Your task to perform on an android device: turn off improve location accuracy Image 0: 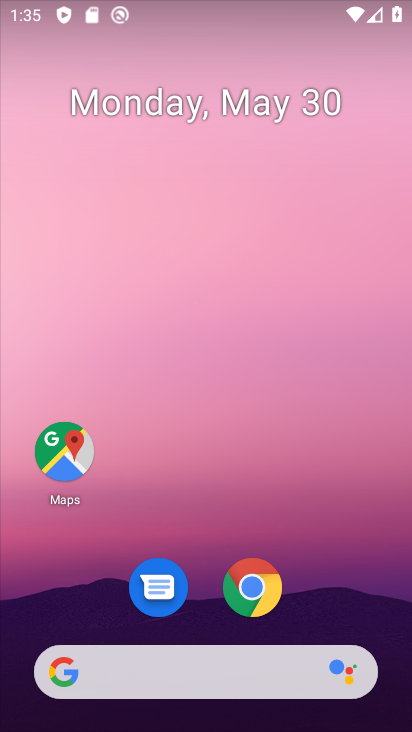
Step 0: drag from (110, 726) to (184, 112)
Your task to perform on an android device: turn off improve location accuracy Image 1: 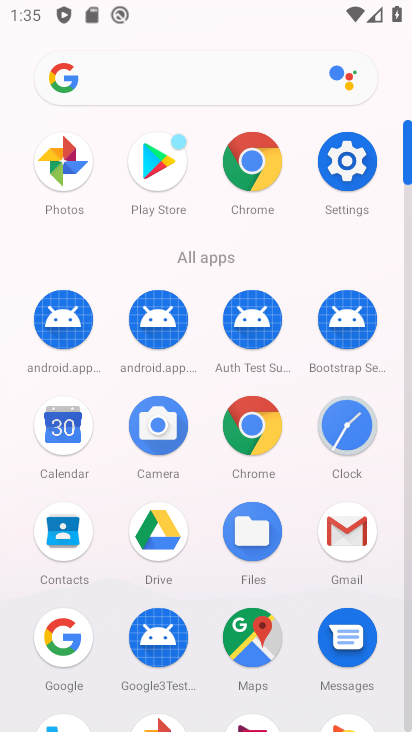
Step 1: click (356, 171)
Your task to perform on an android device: turn off improve location accuracy Image 2: 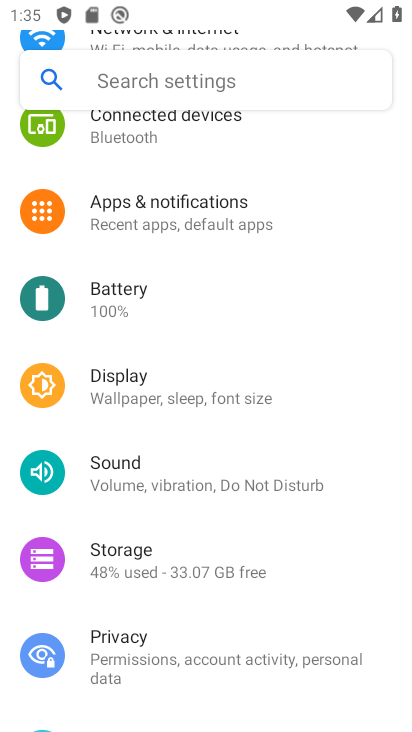
Step 2: drag from (189, 693) to (184, 243)
Your task to perform on an android device: turn off improve location accuracy Image 3: 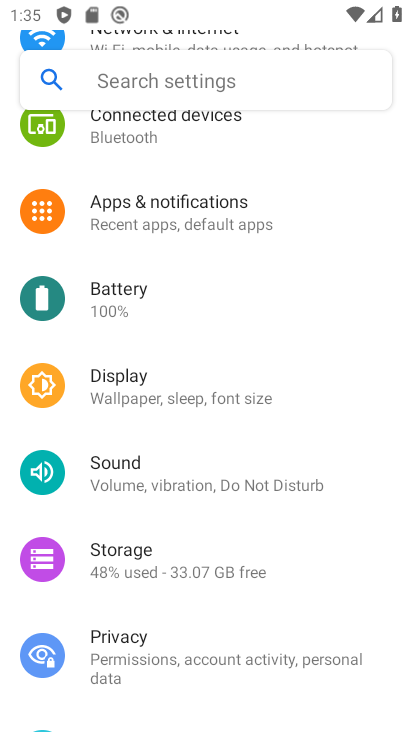
Step 3: drag from (150, 690) to (141, 259)
Your task to perform on an android device: turn off improve location accuracy Image 4: 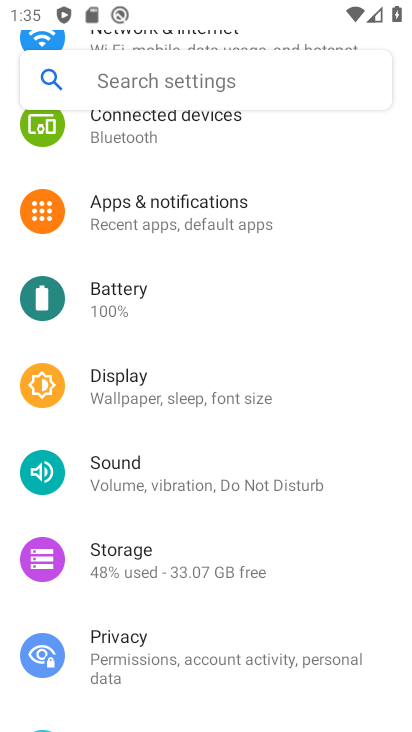
Step 4: drag from (37, 692) to (26, 213)
Your task to perform on an android device: turn off improve location accuracy Image 5: 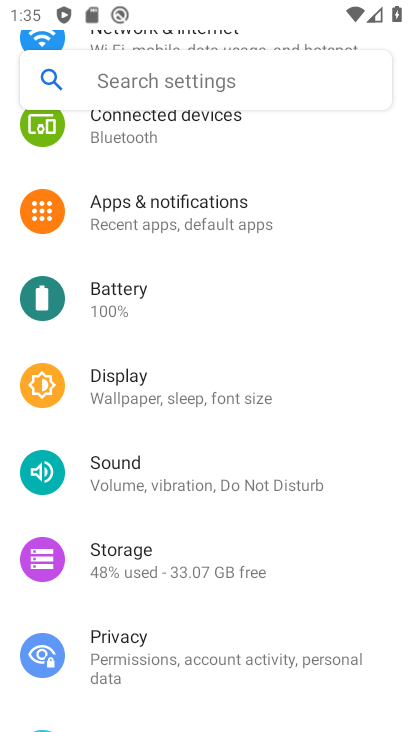
Step 5: drag from (53, 674) to (75, 195)
Your task to perform on an android device: turn off improve location accuracy Image 6: 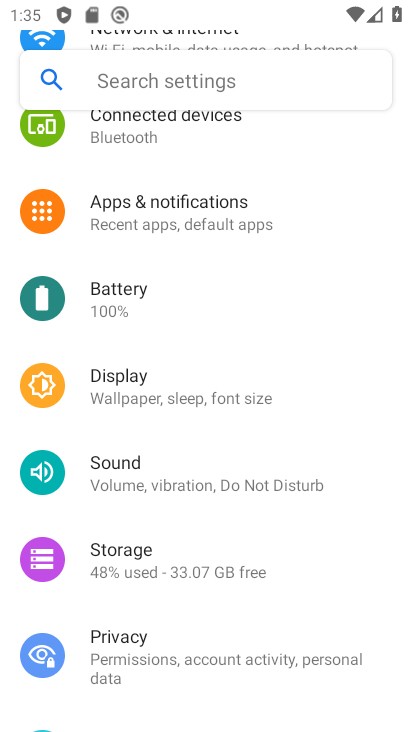
Step 6: drag from (368, 661) to (302, 71)
Your task to perform on an android device: turn off improve location accuracy Image 7: 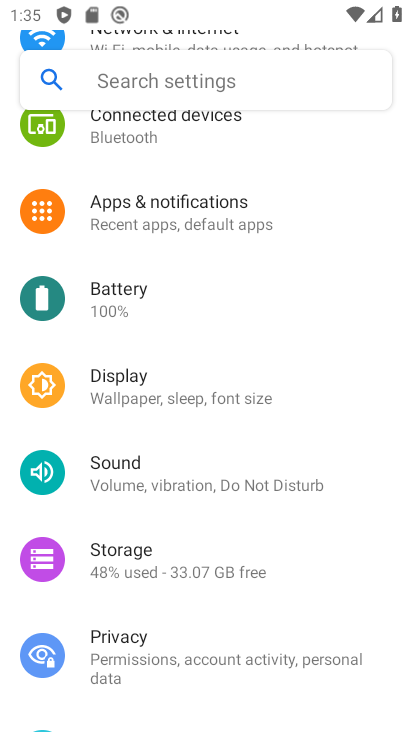
Step 7: drag from (196, 651) to (224, 86)
Your task to perform on an android device: turn off improve location accuracy Image 8: 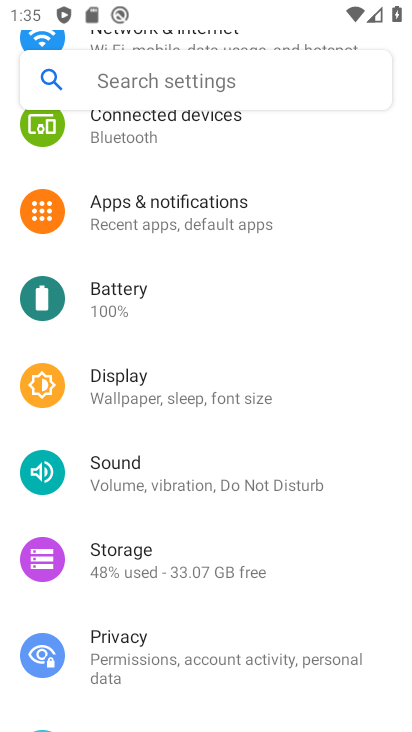
Step 8: drag from (168, 671) to (201, 92)
Your task to perform on an android device: turn off improve location accuracy Image 9: 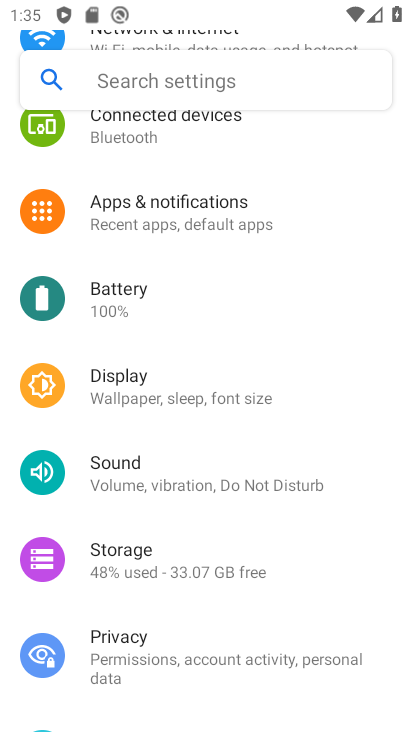
Step 9: drag from (87, 708) to (64, 262)
Your task to perform on an android device: turn off improve location accuracy Image 10: 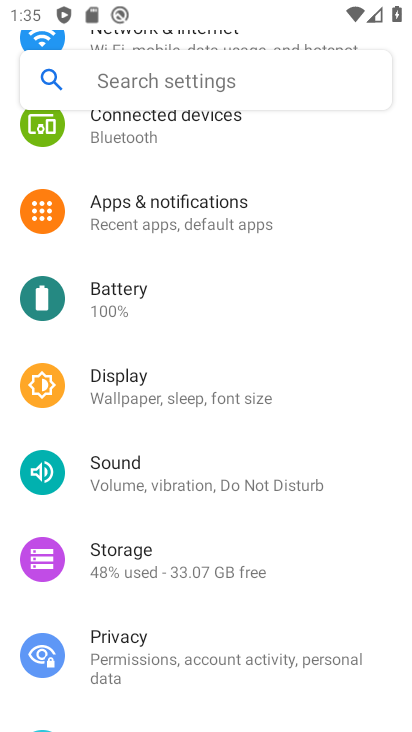
Step 10: click (34, 726)
Your task to perform on an android device: turn off improve location accuracy Image 11: 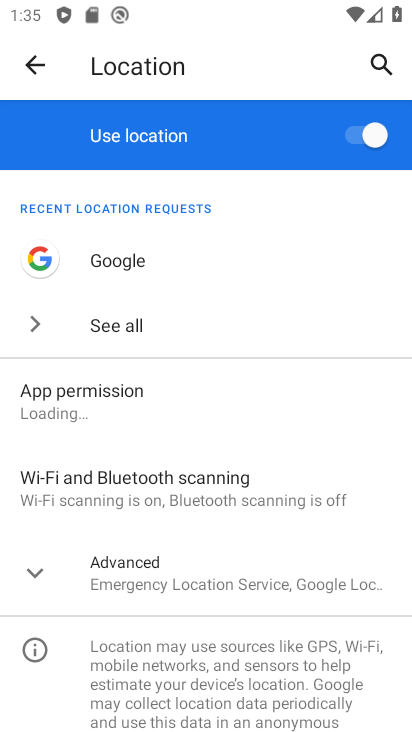
Step 11: click (164, 582)
Your task to perform on an android device: turn off improve location accuracy Image 12: 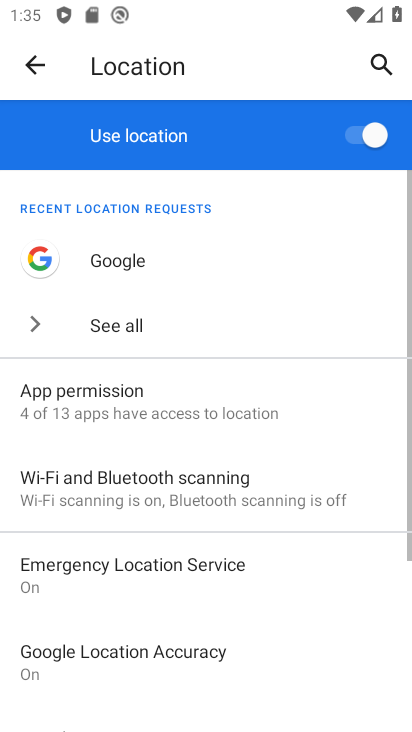
Step 12: click (158, 654)
Your task to perform on an android device: turn off improve location accuracy Image 13: 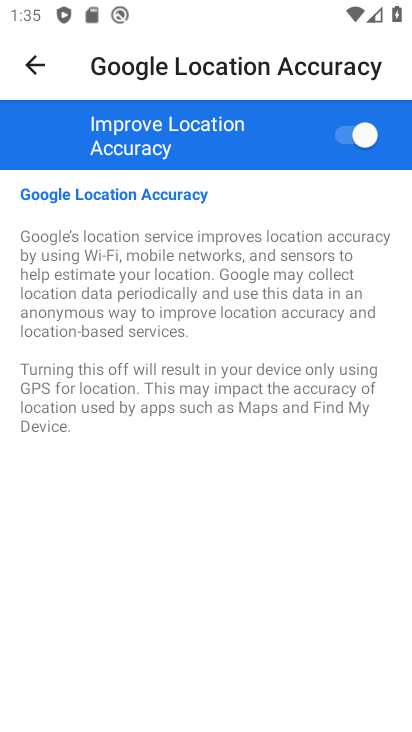
Step 13: click (350, 144)
Your task to perform on an android device: turn off improve location accuracy Image 14: 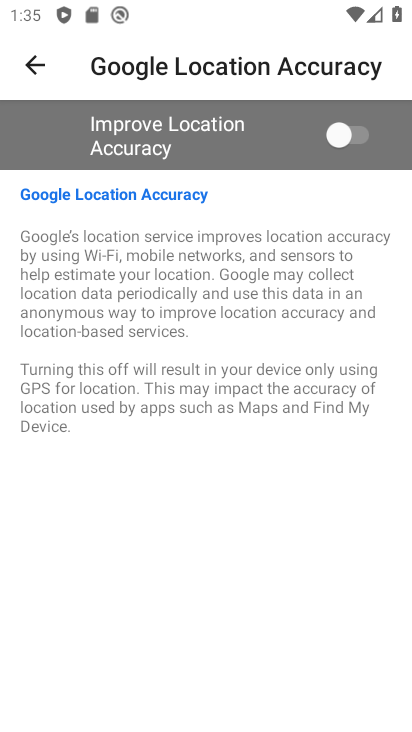
Step 14: task complete